Your task to perform on an android device: Open the phone app and click the voicemail tab. Image 0: 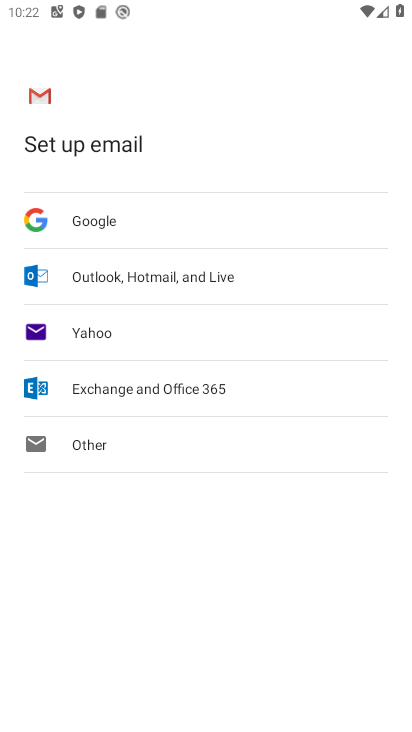
Step 0: press home button
Your task to perform on an android device: Open the phone app and click the voicemail tab. Image 1: 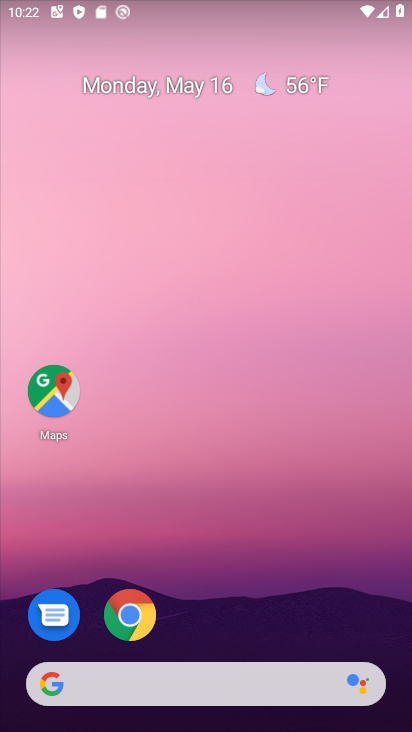
Step 1: drag from (230, 674) to (209, 209)
Your task to perform on an android device: Open the phone app and click the voicemail tab. Image 2: 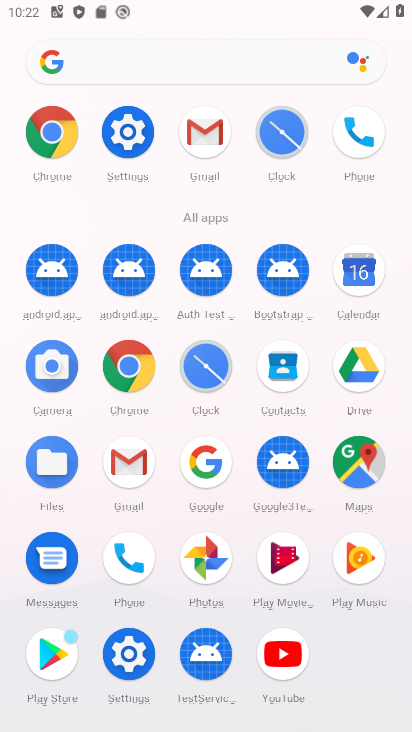
Step 2: click (346, 150)
Your task to perform on an android device: Open the phone app and click the voicemail tab. Image 3: 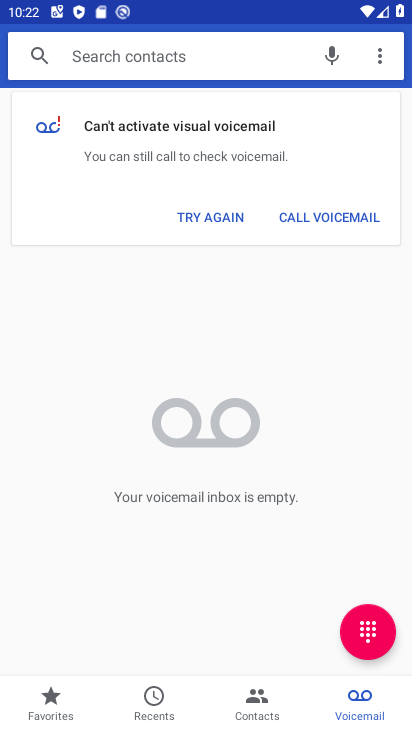
Step 3: task complete